Your task to perform on an android device: snooze an email in the gmail app Image 0: 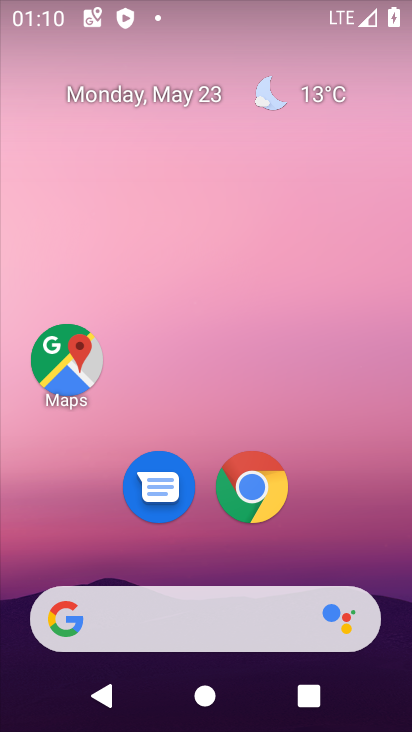
Step 0: drag from (398, 618) to (353, 55)
Your task to perform on an android device: snooze an email in the gmail app Image 1: 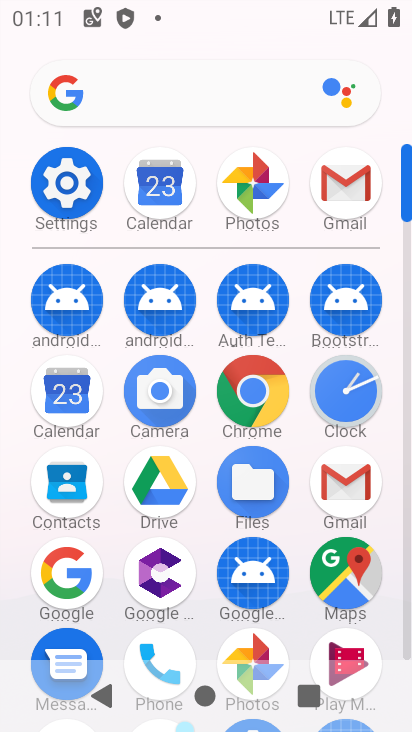
Step 1: click (345, 477)
Your task to perform on an android device: snooze an email in the gmail app Image 2: 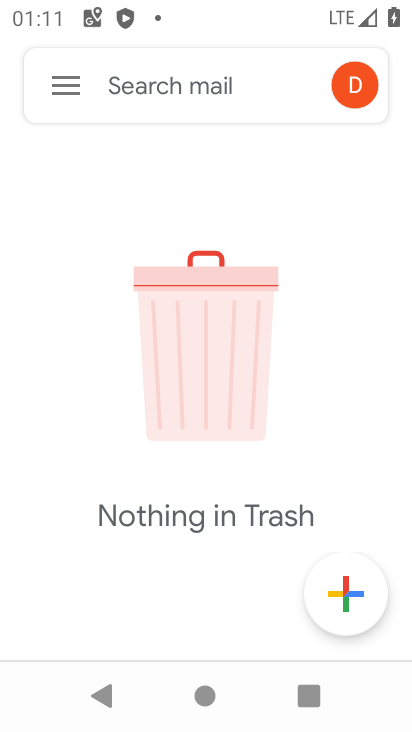
Step 2: click (60, 85)
Your task to perform on an android device: snooze an email in the gmail app Image 3: 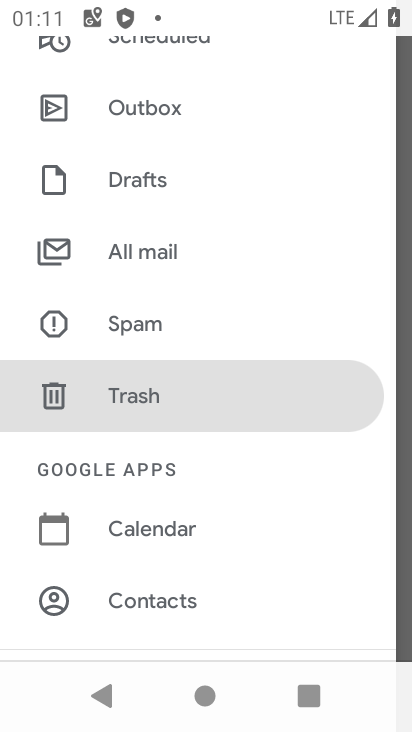
Step 3: click (153, 250)
Your task to perform on an android device: snooze an email in the gmail app Image 4: 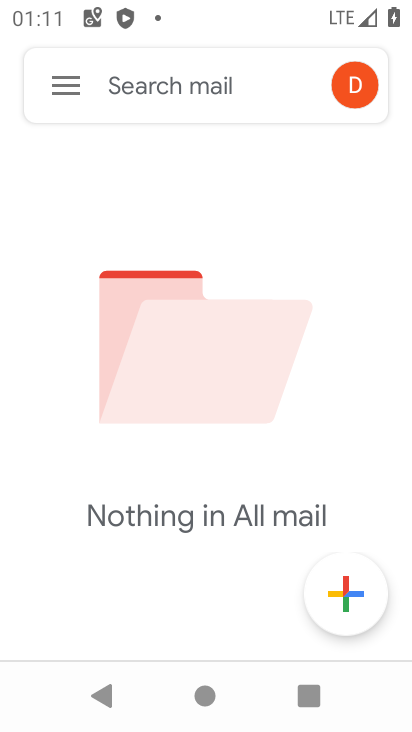
Step 4: task complete